Your task to perform on an android device: toggle notification dots Image 0: 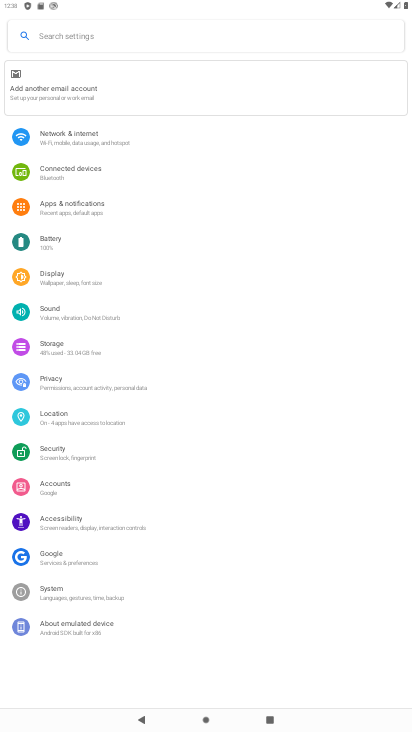
Step 0: click (87, 223)
Your task to perform on an android device: toggle notification dots Image 1: 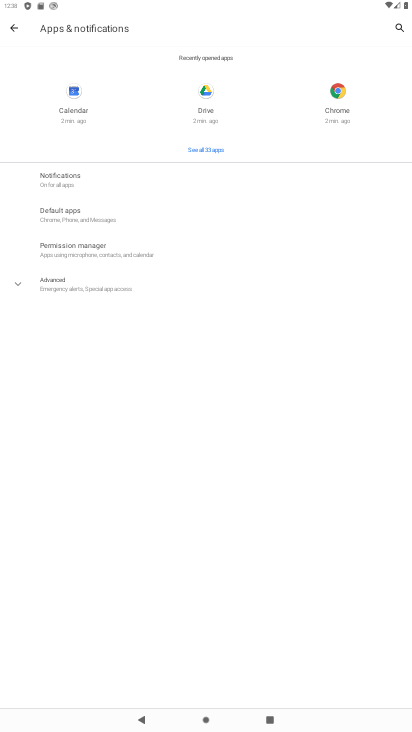
Step 1: click (59, 285)
Your task to perform on an android device: toggle notification dots Image 2: 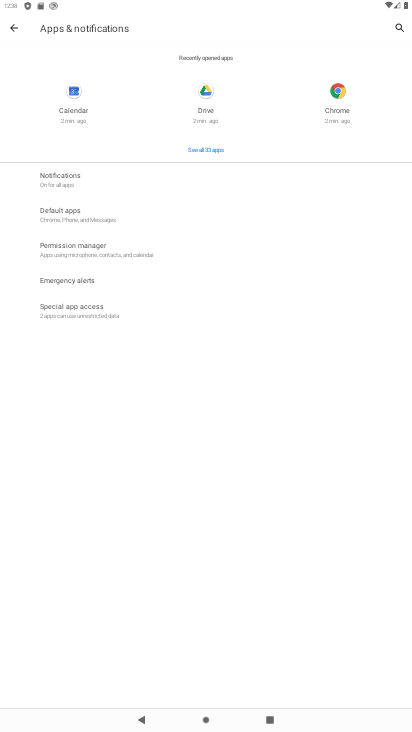
Step 2: click (67, 181)
Your task to perform on an android device: toggle notification dots Image 3: 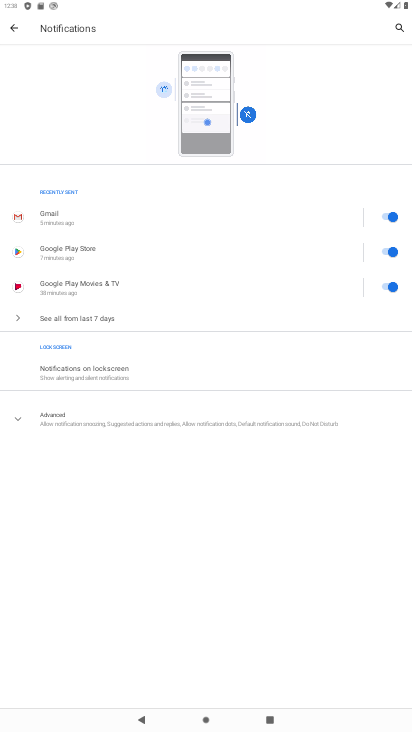
Step 3: click (89, 417)
Your task to perform on an android device: toggle notification dots Image 4: 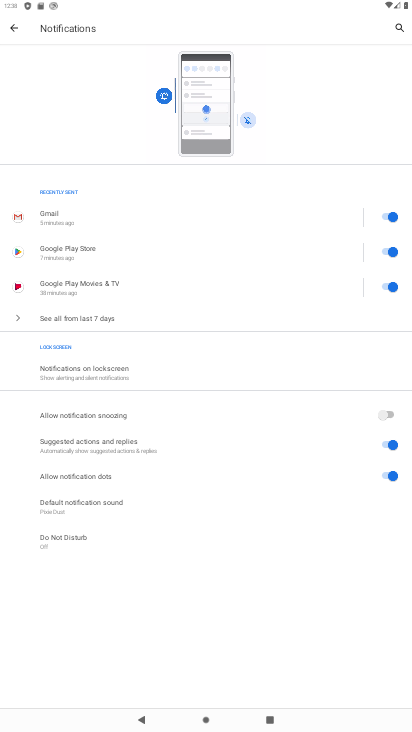
Step 4: click (387, 472)
Your task to perform on an android device: toggle notification dots Image 5: 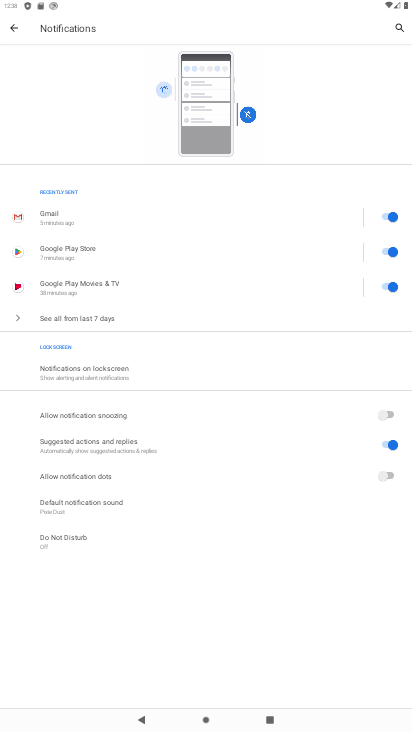
Step 5: task complete